Your task to perform on an android device: add a contact in the contacts app Image 0: 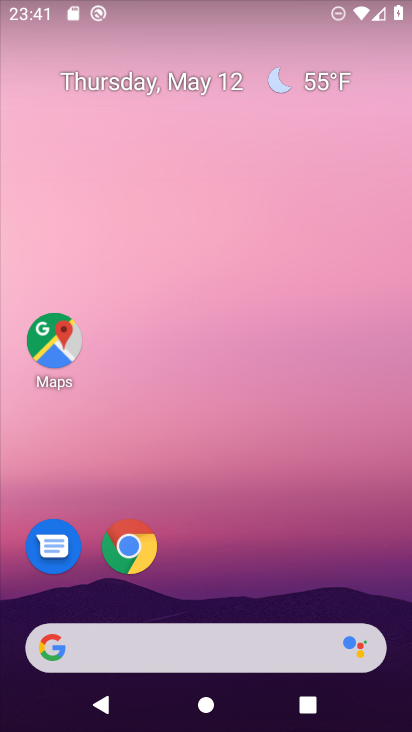
Step 0: drag from (225, 507) to (250, 181)
Your task to perform on an android device: add a contact in the contacts app Image 1: 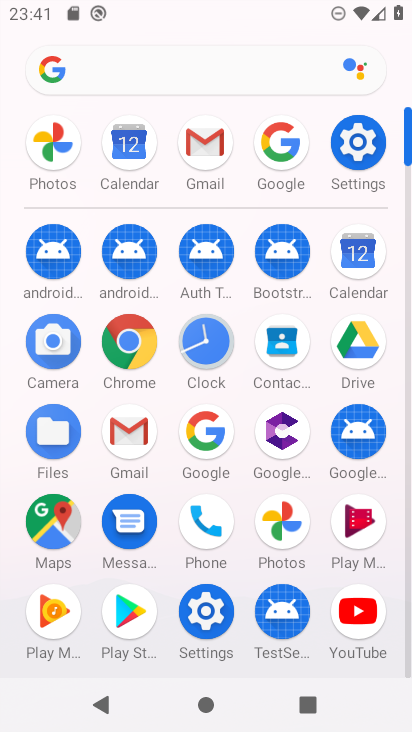
Step 1: click (278, 345)
Your task to perform on an android device: add a contact in the contacts app Image 2: 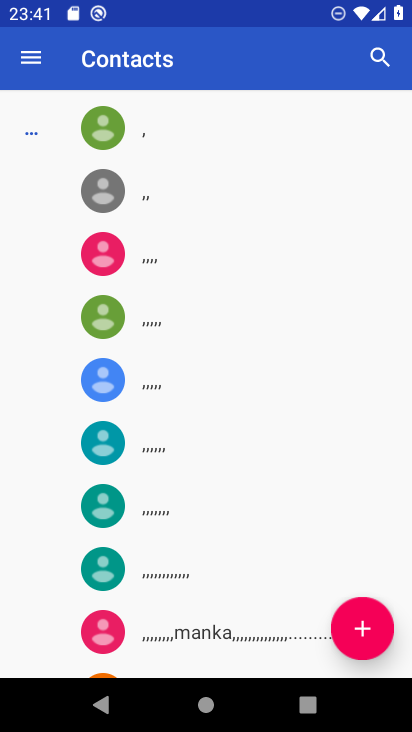
Step 2: click (365, 619)
Your task to perform on an android device: add a contact in the contacts app Image 3: 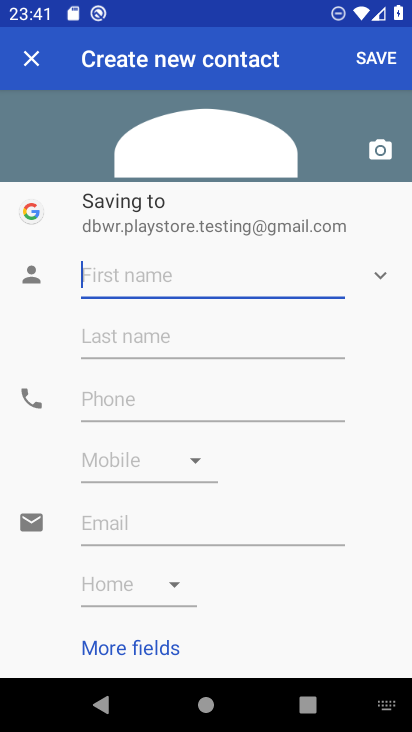
Step 3: type "ggjh"
Your task to perform on an android device: add a contact in the contacts app Image 4: 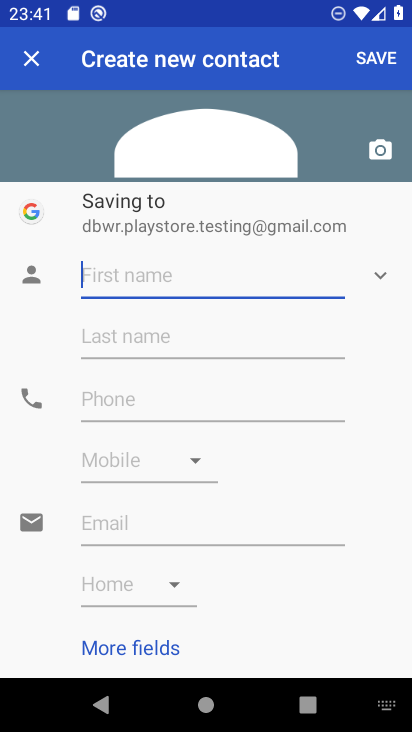
Step 4: click (109, 332)
Your task to perform on an android device: add a contact in the contacts app Image 5: 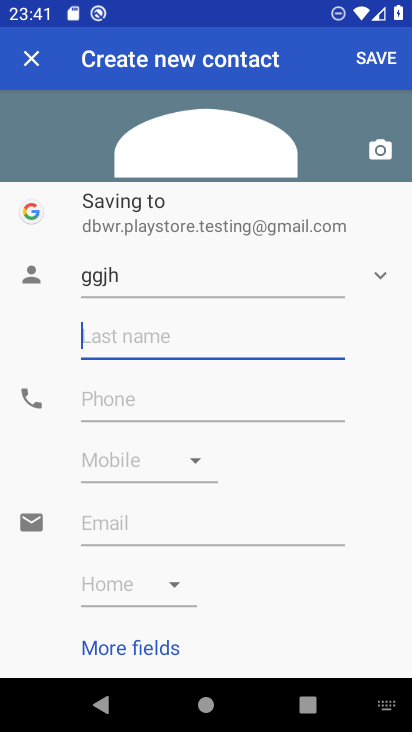
Step 5: type "ghv"
Your task to perform on an android device: add a contact in the contacts app Image 6: 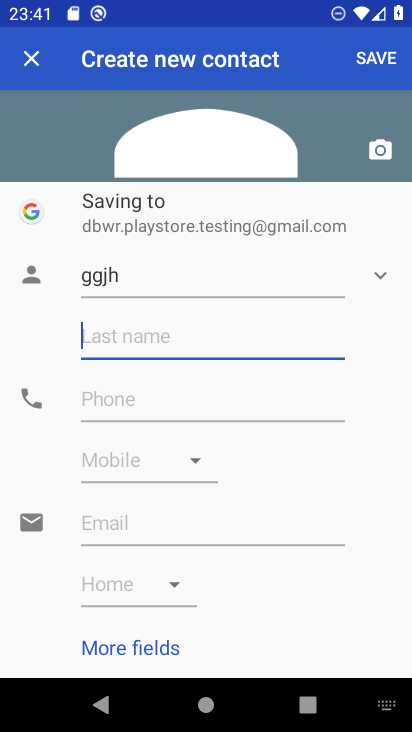
Step 6: click (178, 396)
Your task to perform on an android device: add a contact in the contacts app Image 7: 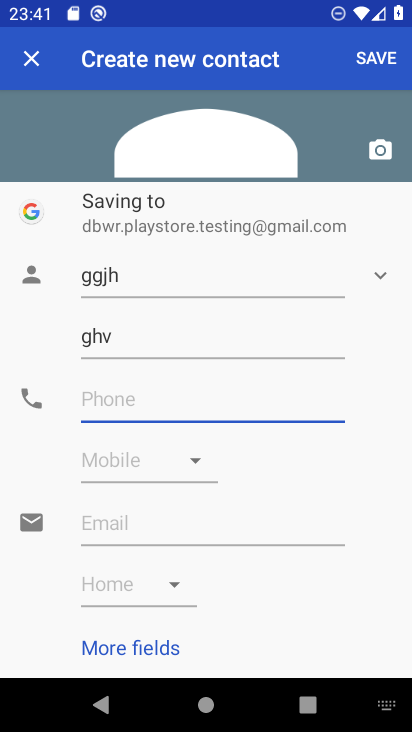
Step 7: type "766768"
Your task to perform on an android device: add a contact in the contacts app Image 8: 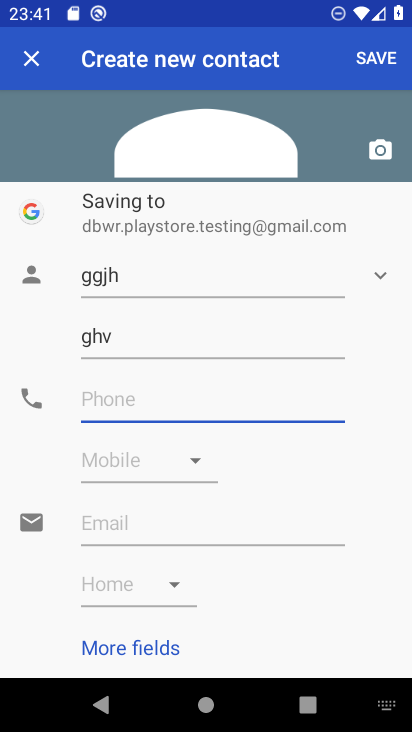
Step 8: click (102, 517)
Your task to perform on an android device: add a contact in the contacts app Image 9: 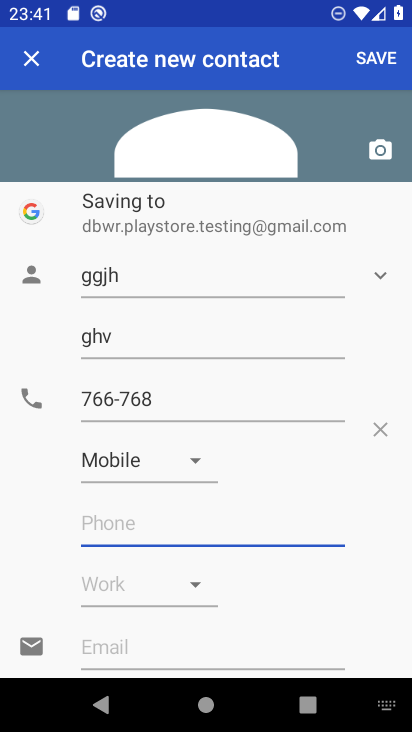
Step 9: click (376, 61)
Your task to perform on an android device: add a contact in the contacts app Image 10: 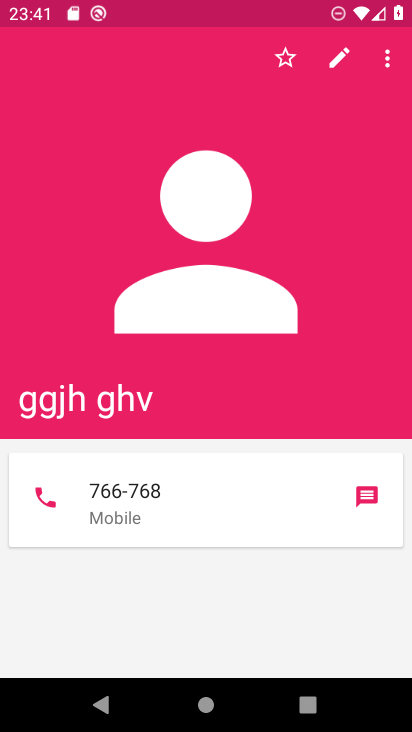
Step 10: task complete